Your task to perform on an android device: uninstall "Contacts" Image 0: 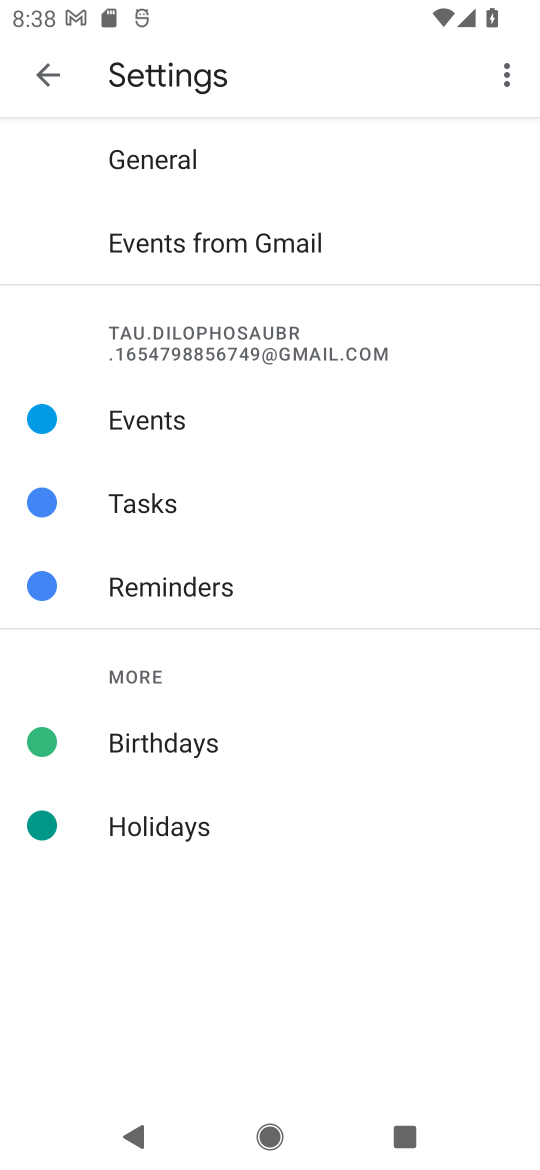
Step 0: press home button
Your task to perform on an android device: uninstall "Contacts" Image 1: 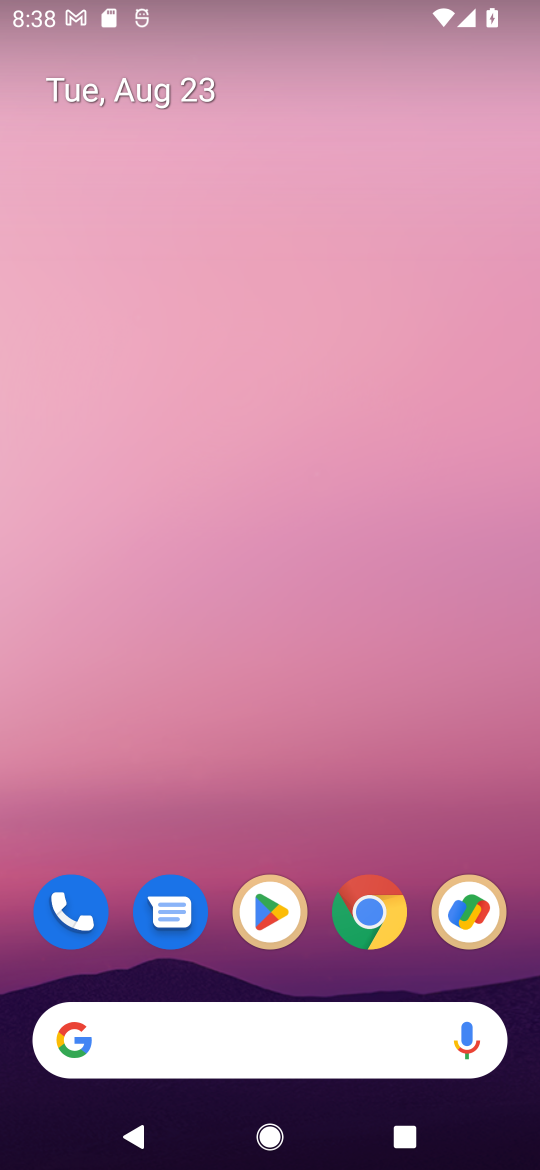
Step 1: drag from (162, 1046) to (255, 154)
Your task to perform on an android device: uninstall "Contacts" Image 2: 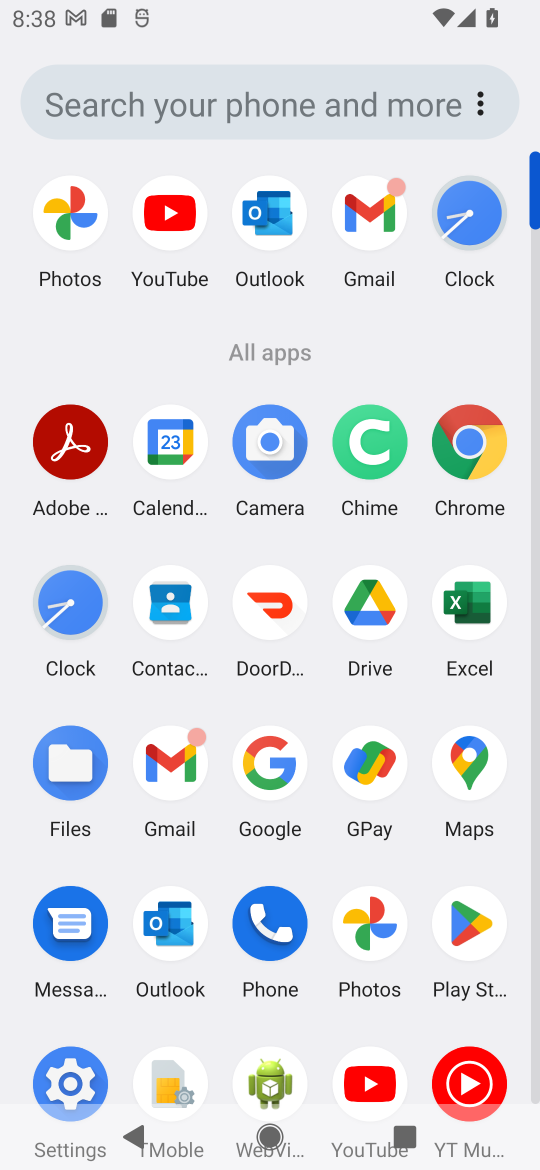
Step 2: click (460, 936)
Your task to perform on an android device: uninstall "Contacts" Image 3: 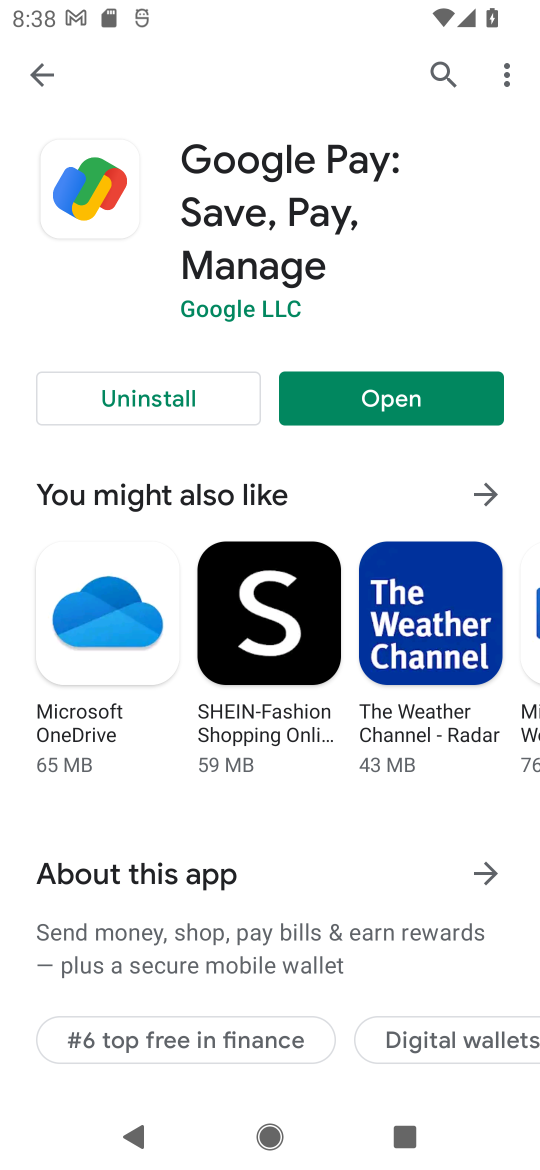
Step 3: press back button
Your task to perform on an android device: uninstall "Contacts" Image 4: 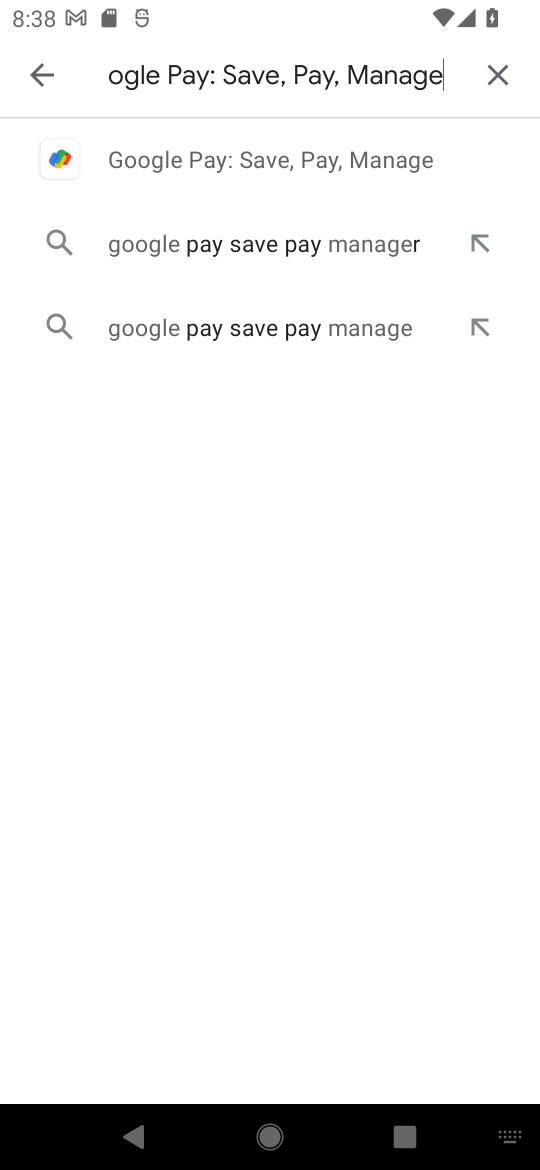
Step 4: press back button
Your task to perform on an android device: uninstall "Contacts" Image 5: 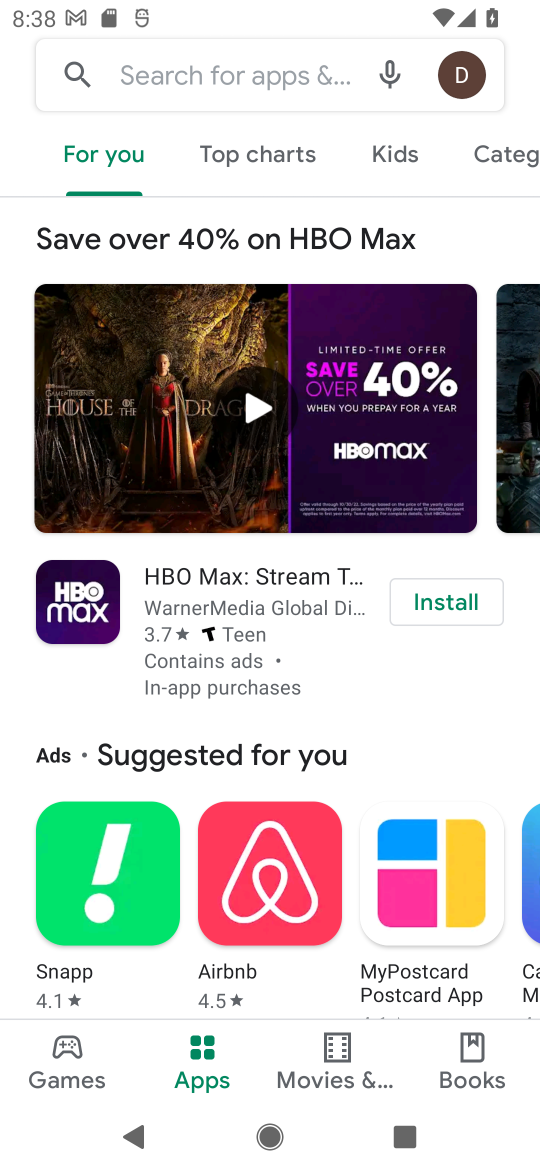
Step 5: click (154, 83)
Your task to perform on an android device: uninstall "Contacts" Image 6: 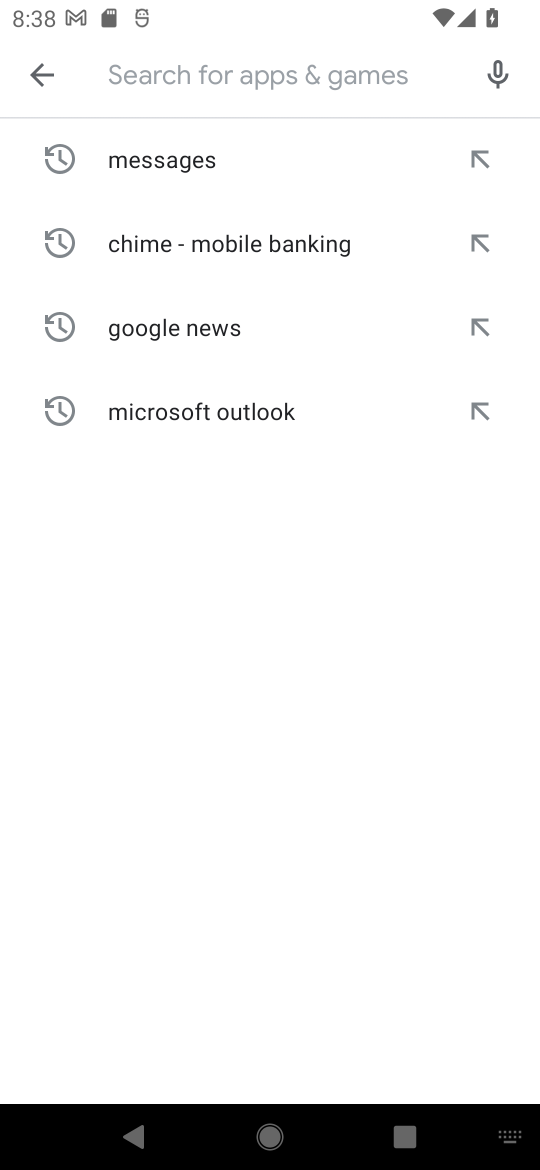
Step 6: type "Contacts"
Your task to perform on an android device: uninstall "Contacts" Image 7: 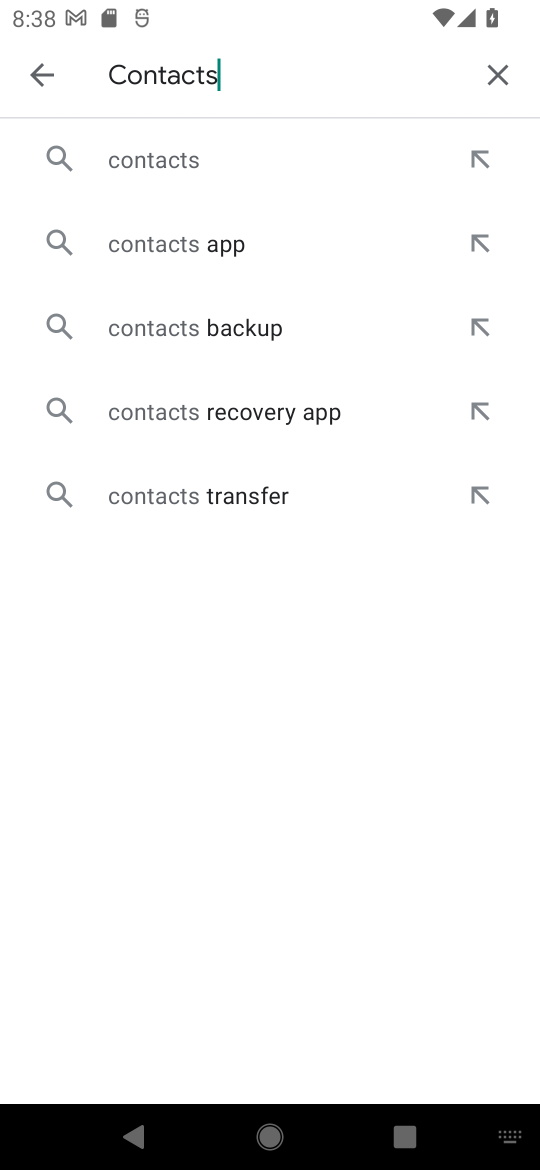
Step 7: click (173, 169)
Your task to perform on an android device: uninstall "Contacts" Image 8: 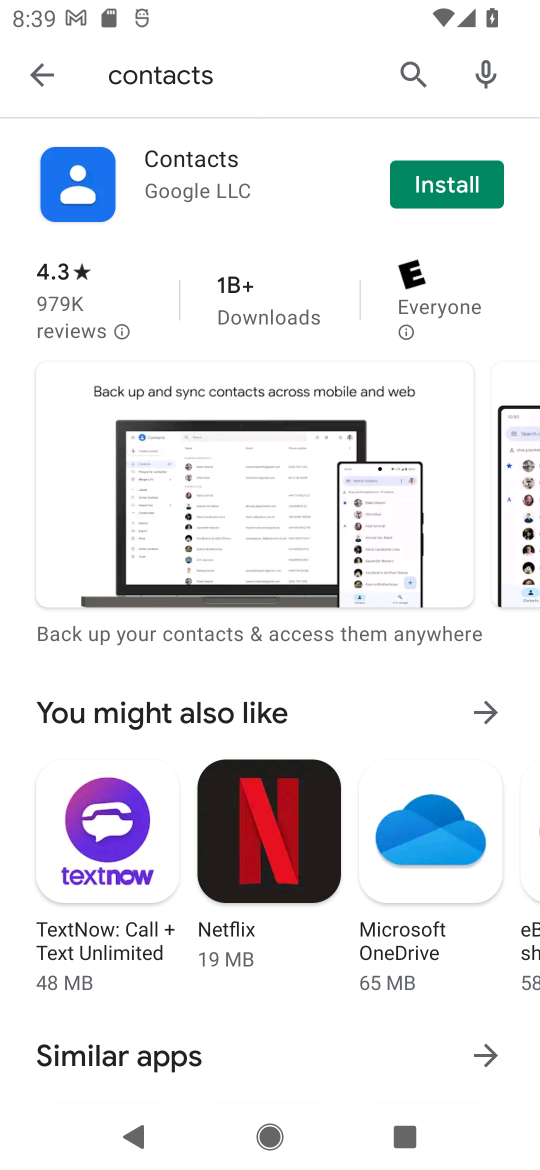
Step 8: task complete